Your task to perform on an android device: Search for Italian restaurants on Maps Image 0: 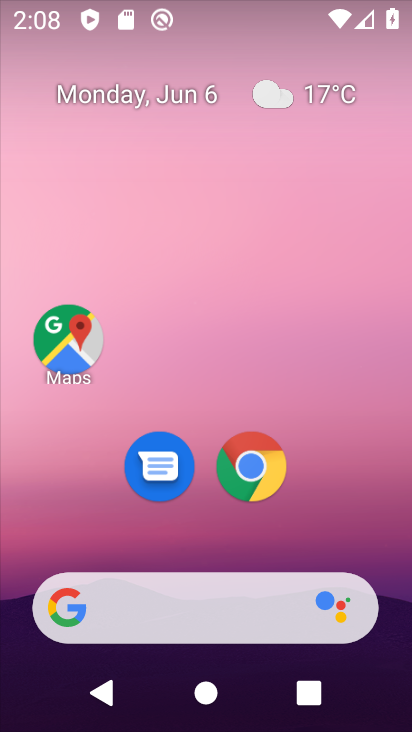
Step 0: drag from (256, 656) to (234, 2)
Your task to perform on an android device: Search for Italian restaurants on Maps Image 1: 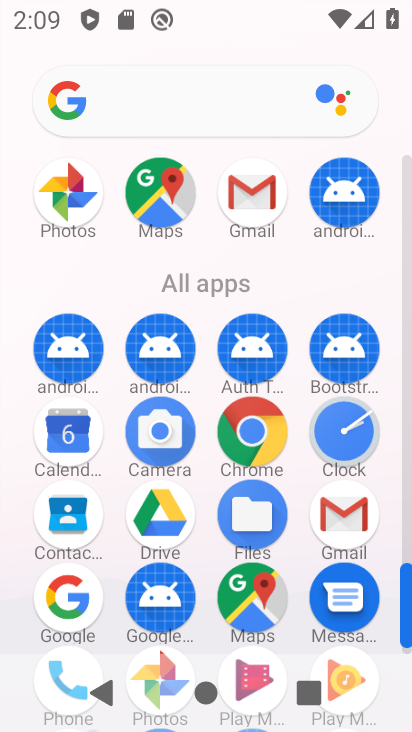
Step 1: click (257, 590)
Your task to perform on an android device: Search for Italian restaurants on Maps Image 2: 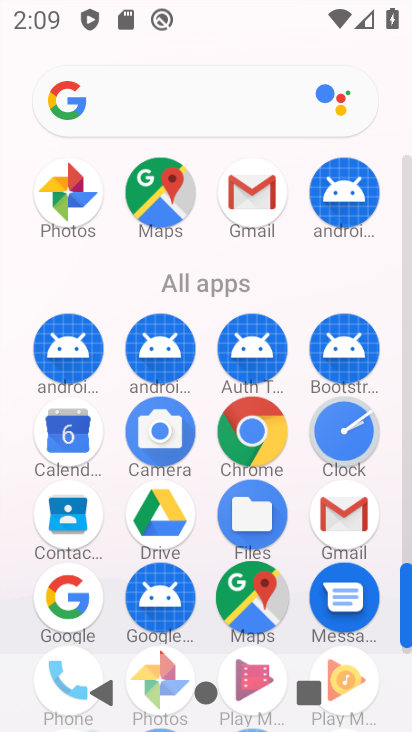
Step 2: drag from (257, 596) to (195, 635)
Your task to perform on an android device: Search for Italian restaurants on Maps Image 3: 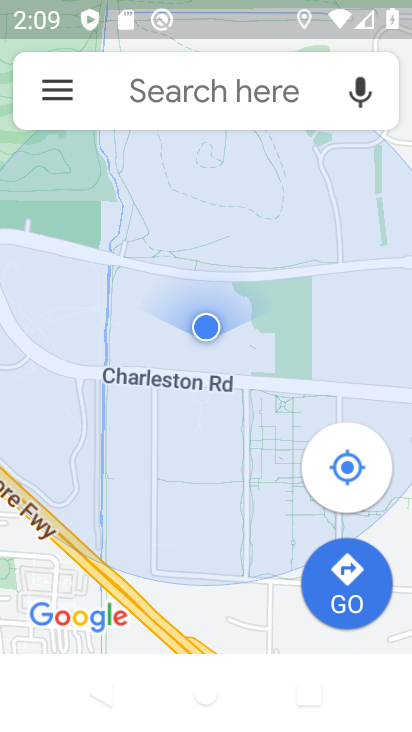
Step 3: click (145, 98)
Your task to perform on an android device: Search for Italian restaurants on Maps Image 4: 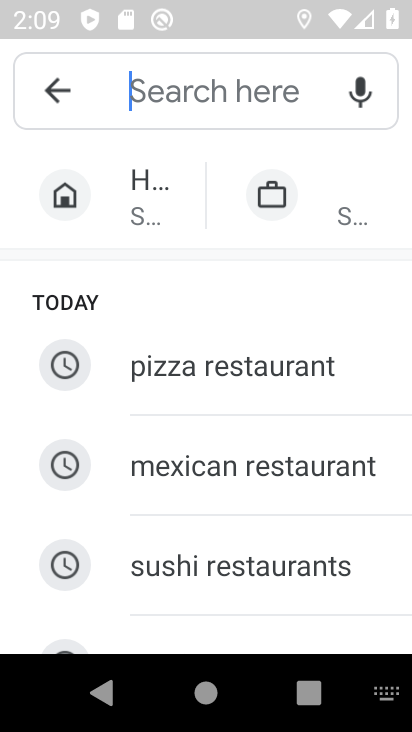
Step 4: type "italian restaurants"
Your task to perform on an android device: Search for Italian restaurants on Maps Image 5: 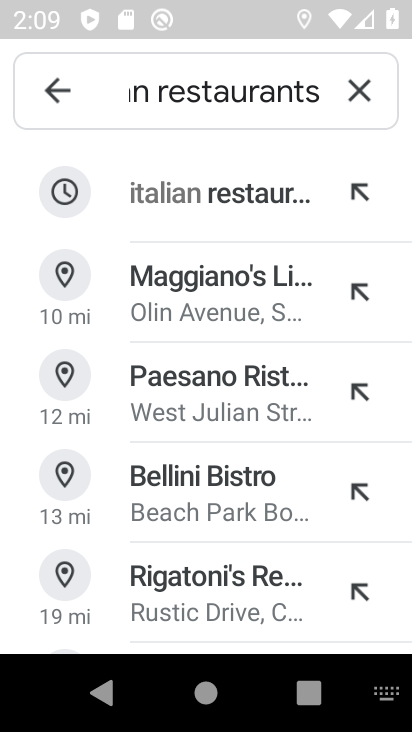
Step 5: task complete